Your task to perform on an android device: turn off javascript in the chrome app Image 0: 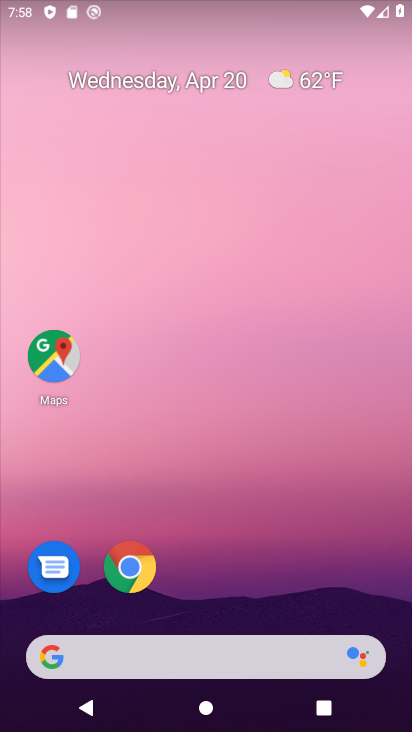
Step 0: click (143, 568)
Your task to perform on an android device: turn off javascript in the chrome app Image 1: 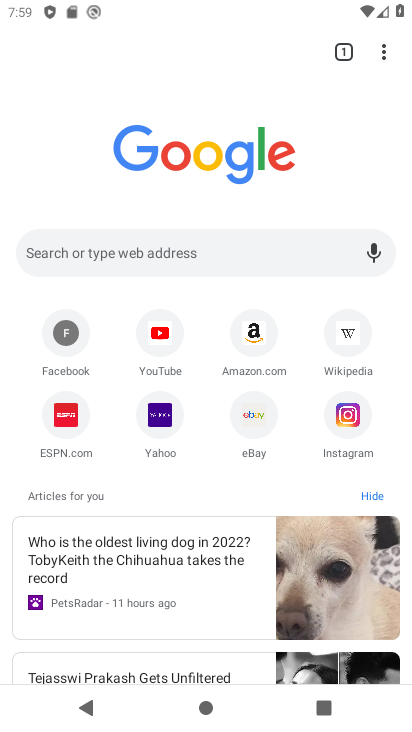
Step 1: click (388, 54)
Your task to perform on an android device: turn off javascript in the chrome app Image 2: 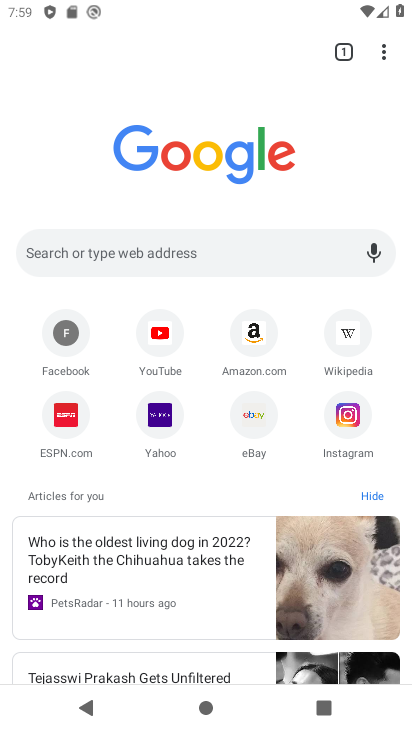
Step 2: drag from (388, 55) to (213, 448)
Your task to perform on an android device: turn off javascript in the chrome app Image 3: 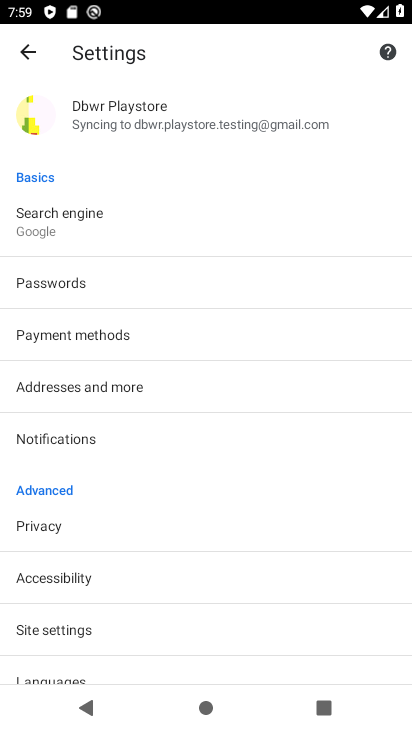
Step 3: click (82, 630)
Your task to perform on an android device: turn off javascript in the chrome app Image 4: 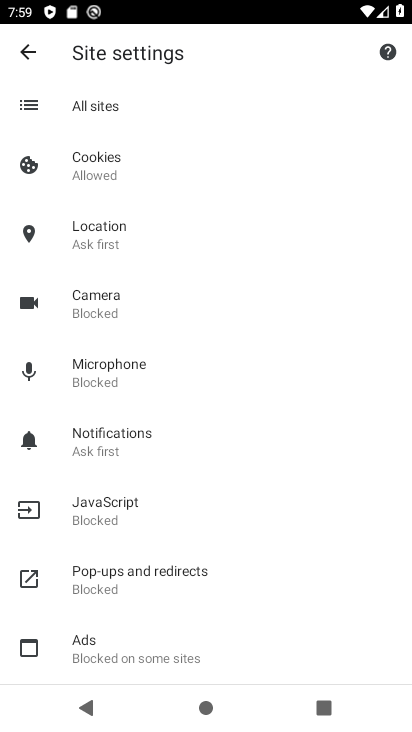
Step 4: click (171, 504)
Your task to perform on an android device: turn off javascript in the chrome app Image 5: 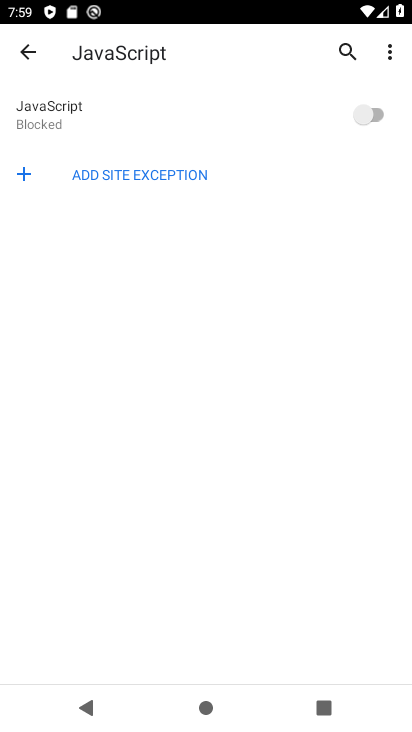
Step 5: task complete